Your task to perform on an android device: toggle pop-ups in chrome Image 0: 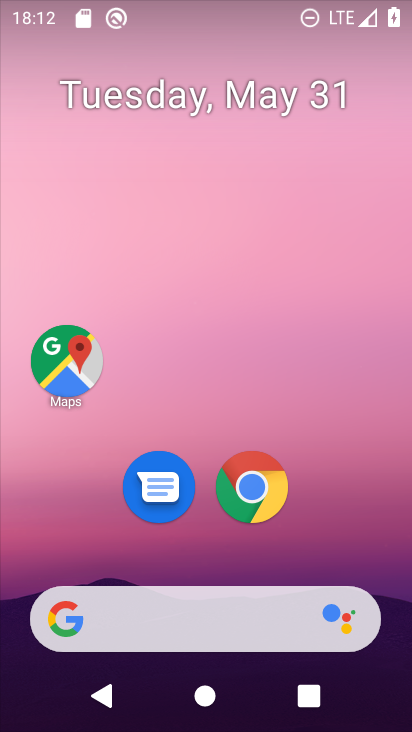
Step 0: click (257, 485)
Your task to perform on an android device: toggle pop-ups in chrome Image 1: 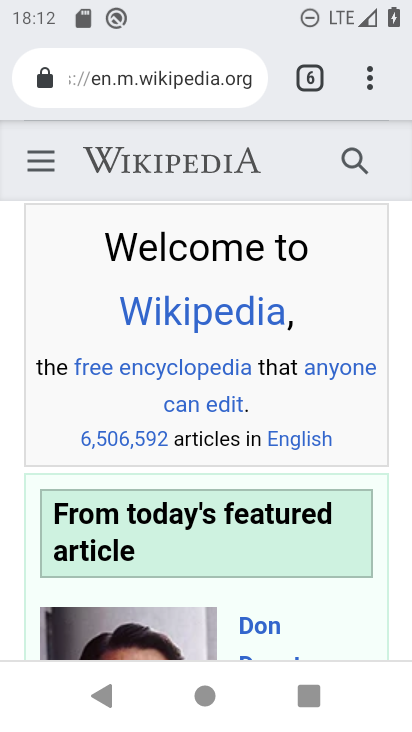
Step 1: click (368, 78)
Your task to perform on an android device: toggle pop-ups in chrome Image 2: 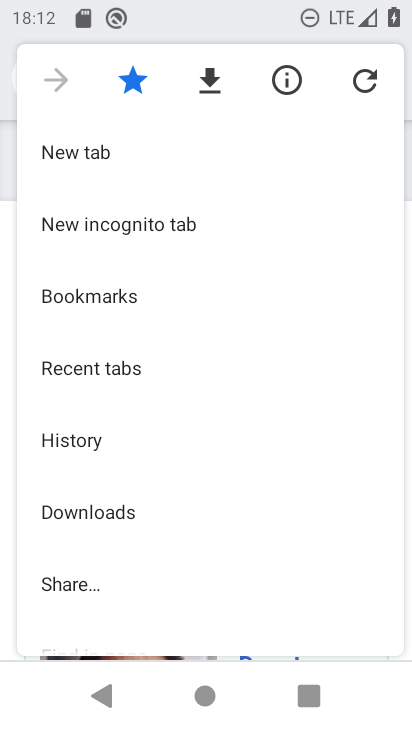
Step 2: drag from (228, 526) to (196, 248)
Your task to perform on an android device: toggle pop-ups in chrome Image 3: 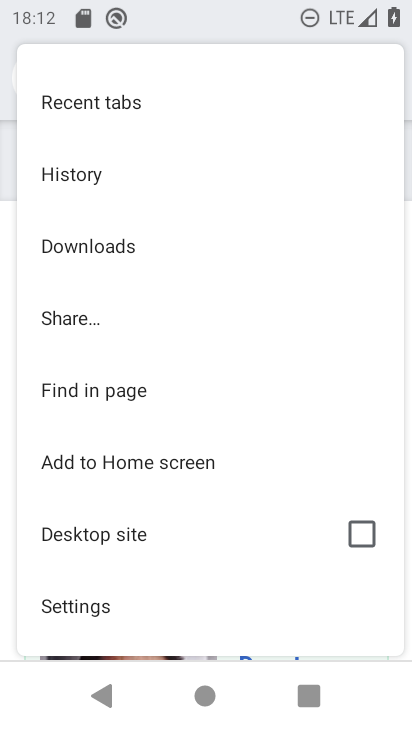
Step 3: drag from (195, 522) to (185, 280)
Your task to perform on an android device: toggle pop-ups in chrome Image 4: 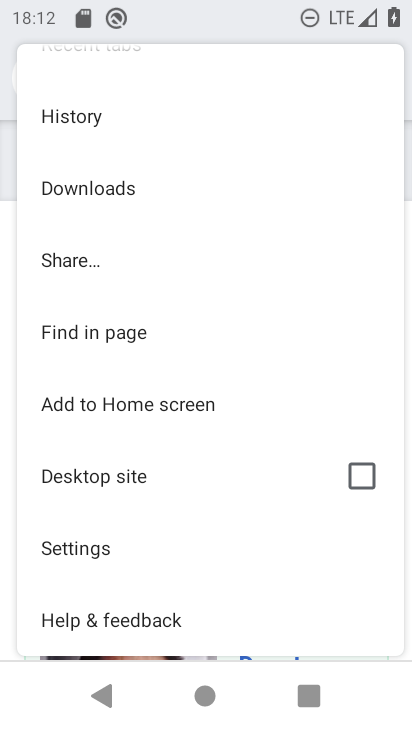
Step 4: click (85, 545)
Your task to perform on an android device: toggle pop-ups in chrome Image 5: 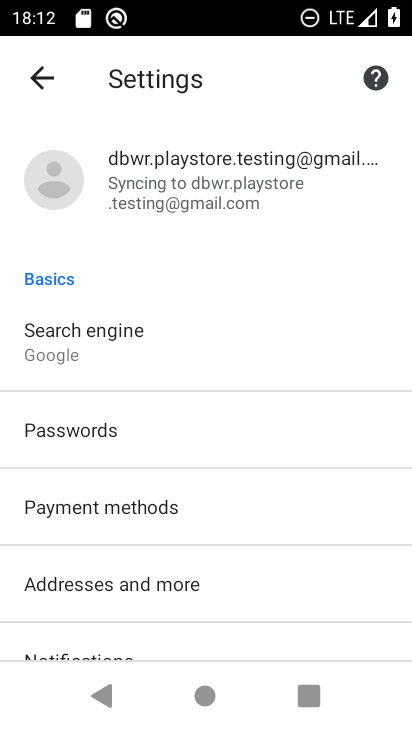
Step 5: drag from (277, 555) to (239, 262)
Your task to perform on an android device: toggle pop-ups in chrome Image 6: 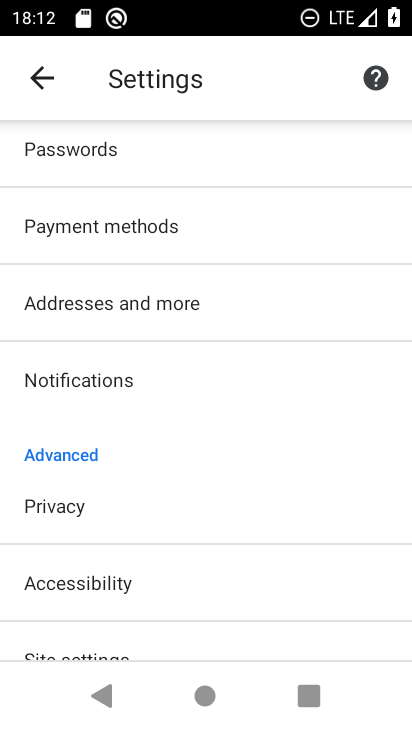
Step 6: drag from (205, 532) to (187, 279)
Your task to perform on an android device: toggle pop-ups in chrome Image 7: 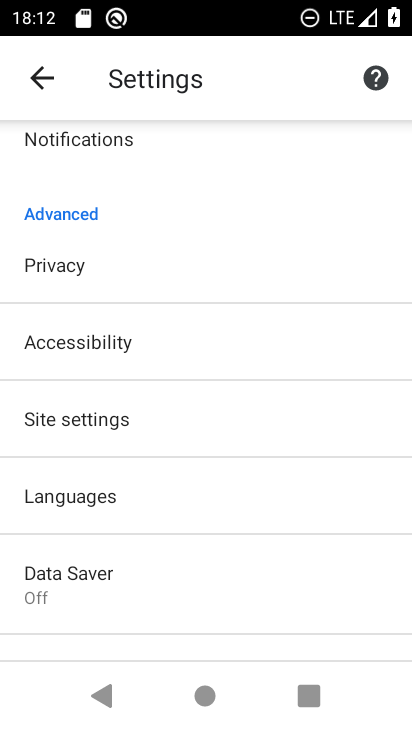
Step 7: click (83, 421)
Your task to perform on an android device: toggle pop-ups in chrome Image 8: 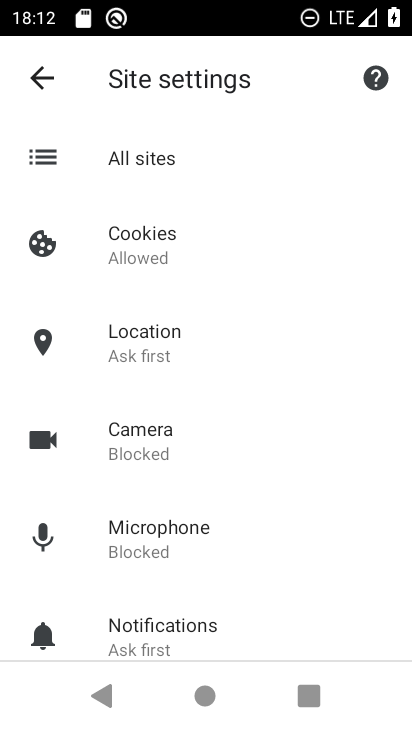
Step 8: drag from (265, 509) to (232, 122)
Your task to perform on an android device: toggle pop-ups in chrome Image 9: 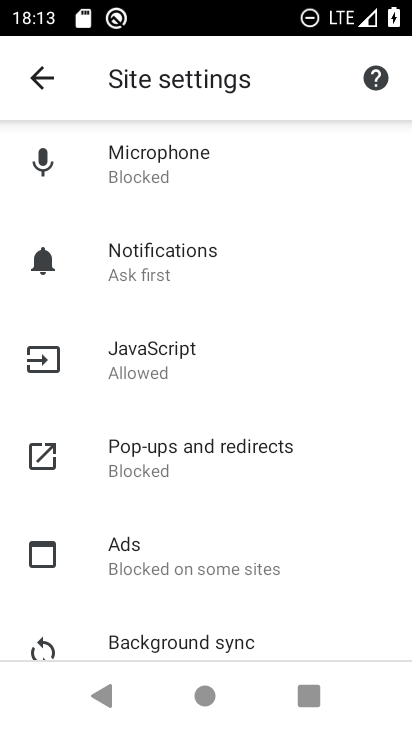
Step 9: click (158, 447)
Your task to perform on an android device: toggle pop-ups in chrome Image 10: 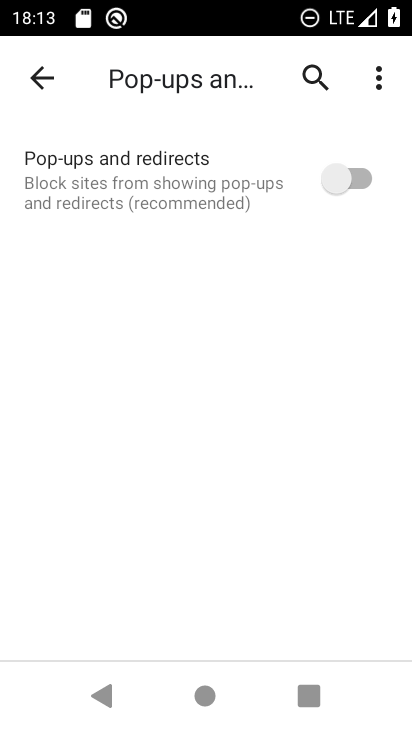
Step 10: click (339, 183)
Your task to perform on an android device: toggle pop-ups in chrome Image 11: 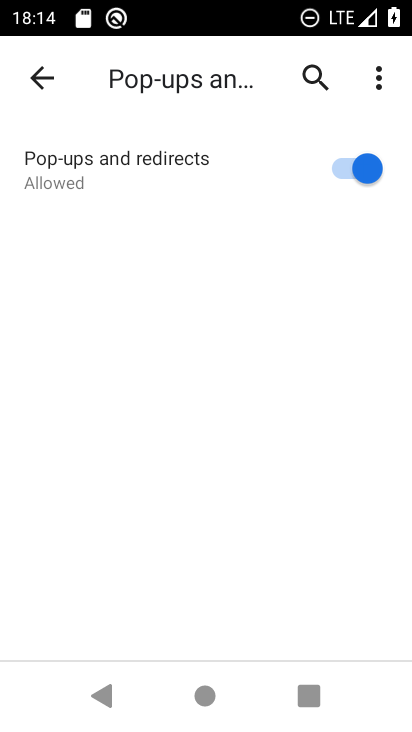
Step 11: task complete